Your task to perform on an android device: set the stopwatch Image 0: 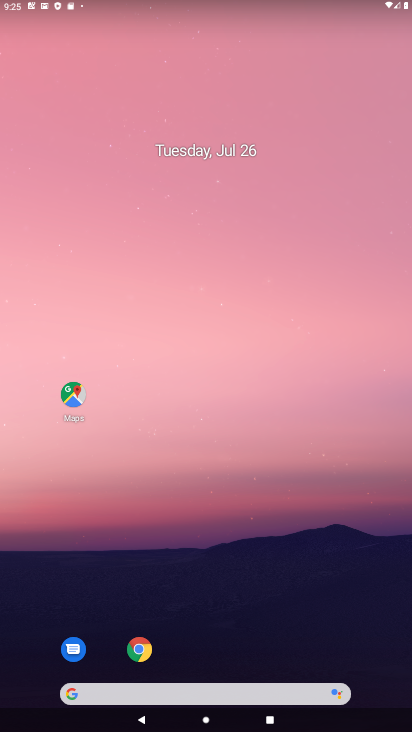
Step 0: drag from (166, 640) to (166, 267)
Your task to perform on an android device: set the stopwatch Image 1: 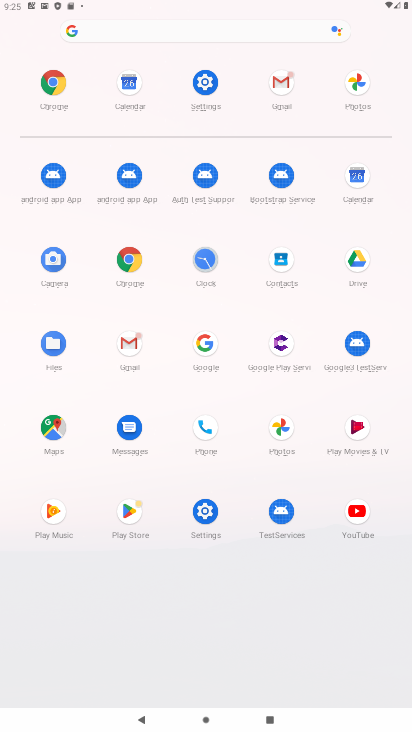
Step 1: drag from (245, 579) to (219, 359)
Your task to perform on an android device: set the stopwatch Image 2: 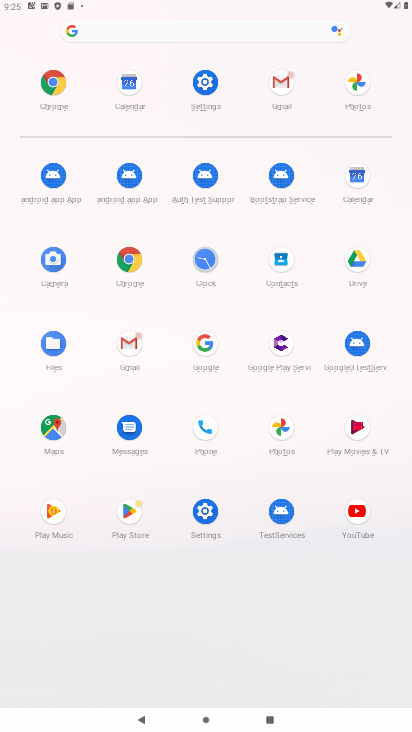
Step 2: click (198, 265)
Your task to perform on an android device: set the stopwatch Image 3: 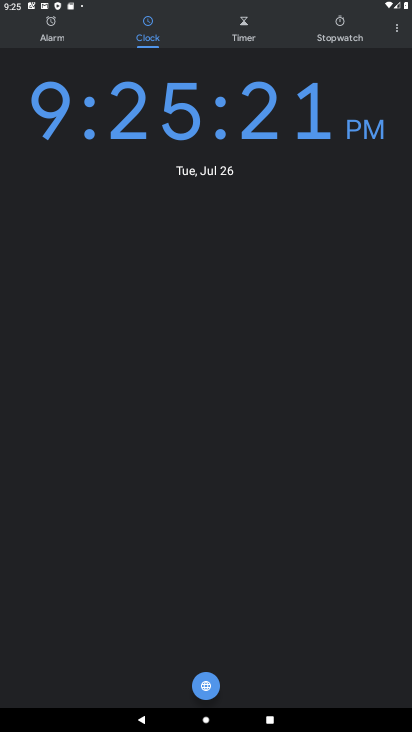
Step 3: click (333, 31)
Your task to perform on an android device: set the stopwatch Image 4: 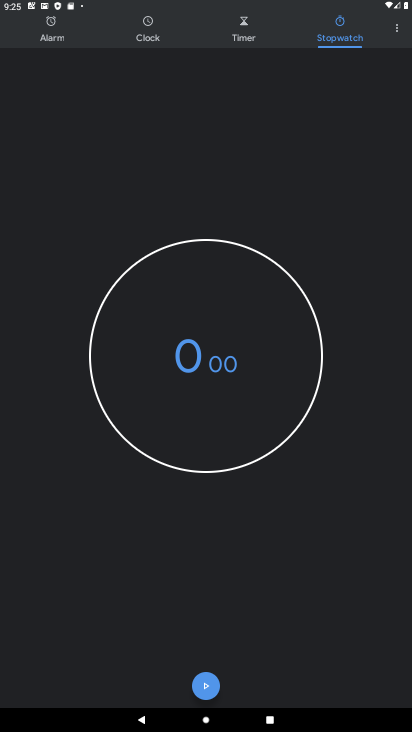
Step 4: drag from (246, 565) to (330, 345)
Your task to perform on an android device: set the stopwatch Image 5: 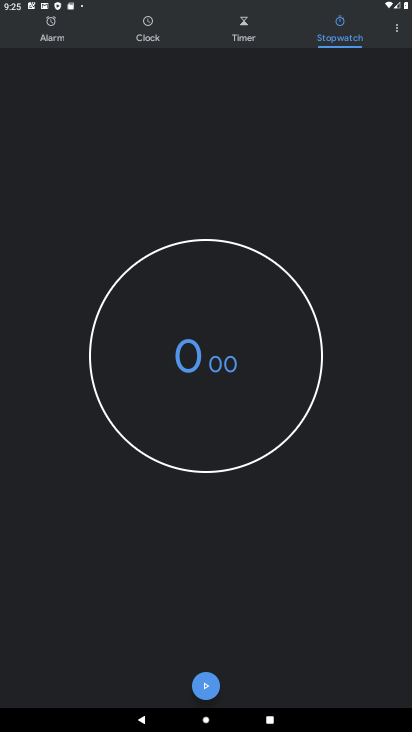
Step 5: drag from (249, 589) to (307, 327)
Your task to perform on an android device: set the stopwatch Image 6: 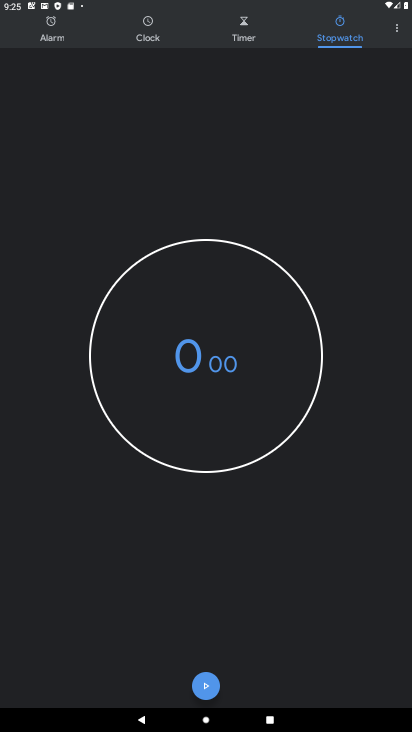
Step 6: drag from (325, 463) to (333, 144)
Your task to perform on an android device: set the stopwatch Image 7: 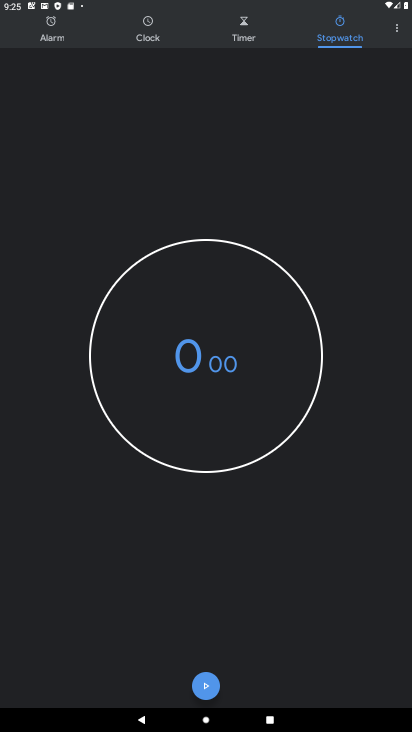
Step 7: drag from (264, 477) to (308, 179)
Your task to perform on an android device: set the stopwatch Image 8: 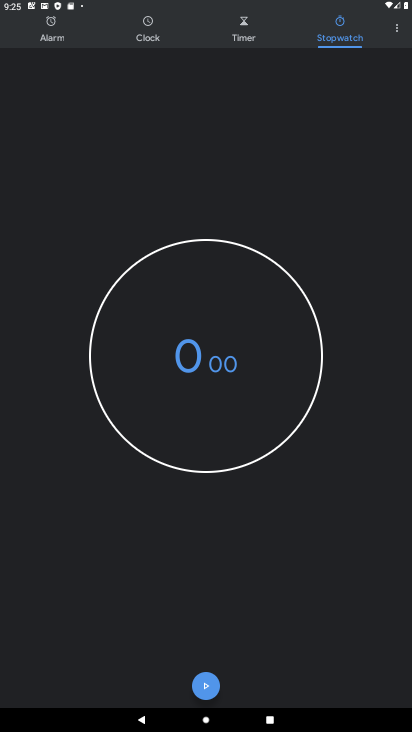
Step 8: click (283, 257)
Your task to perform on an android device: set the stopwatch Image 9: 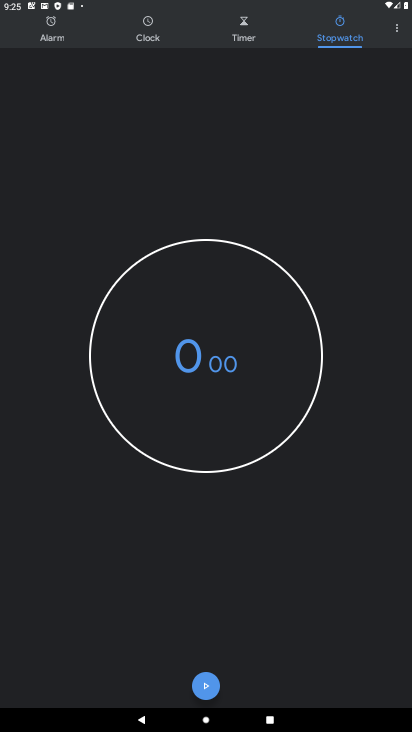
Step 9: drag from (264, 536) to (269, 285)
Your task to perform on an android device: set the stopwatch Image 10: 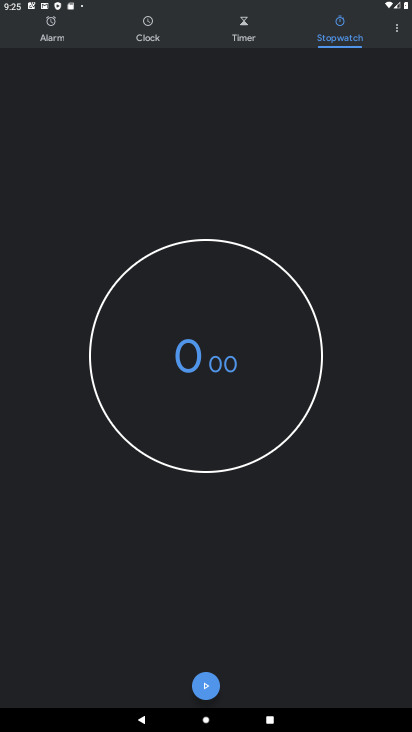
Step 10: drag from (198, 620) to (287, 52)
Your task to perform on an android device: set the stopwatch Image 11: 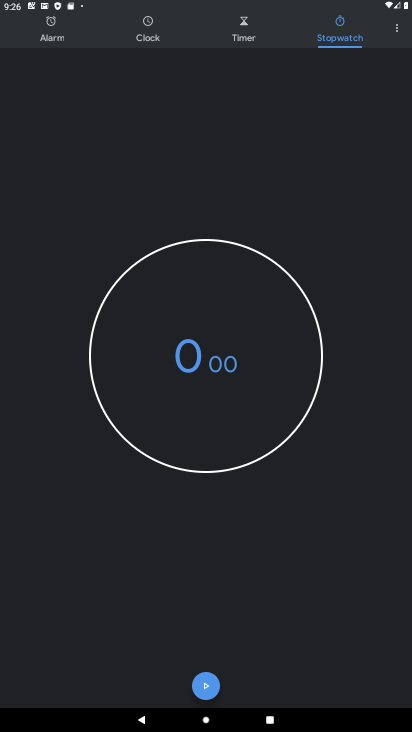
Step 11: drag from (242, 116) to (239, 527)
Your task to perform on an android device: set the stopwatch Image 12: 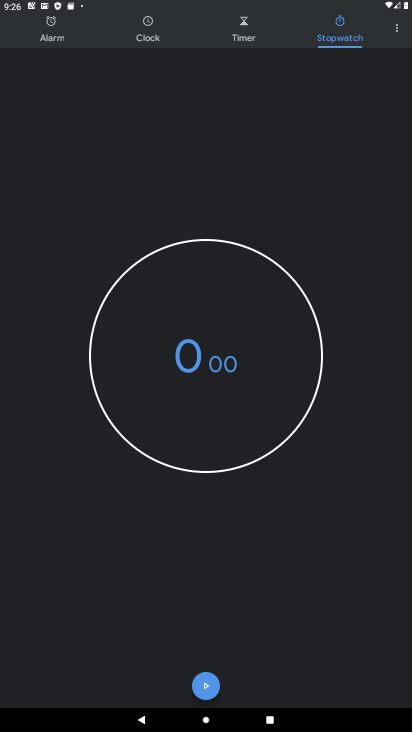
Step 12: drag from (248, 506) to (292, 142)
Your task to perform on an android device: set the stopwatch Image 13: 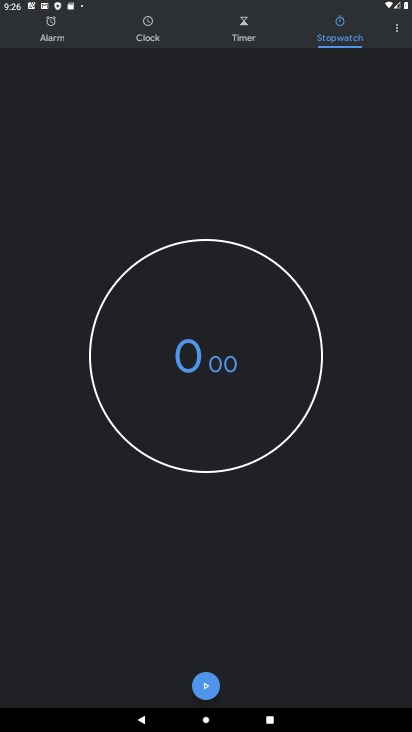
Step 13: click (210, 688)
Your task to perform on an android device: set the stopwatch Image 14: 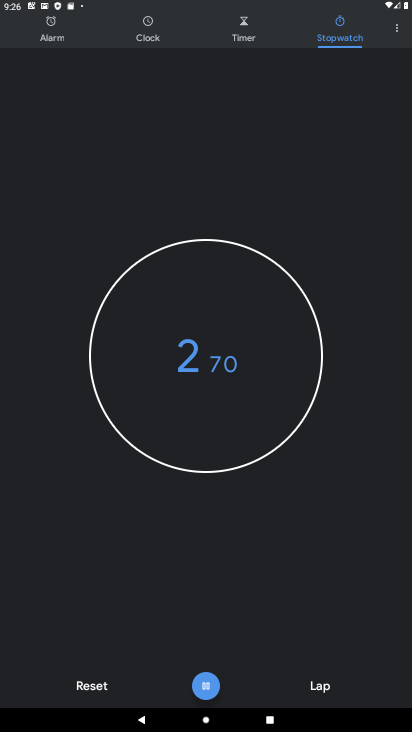
Step 14: task complete